Your task to perform on an android device: Set the phone to "Do not disturb". Image 0: 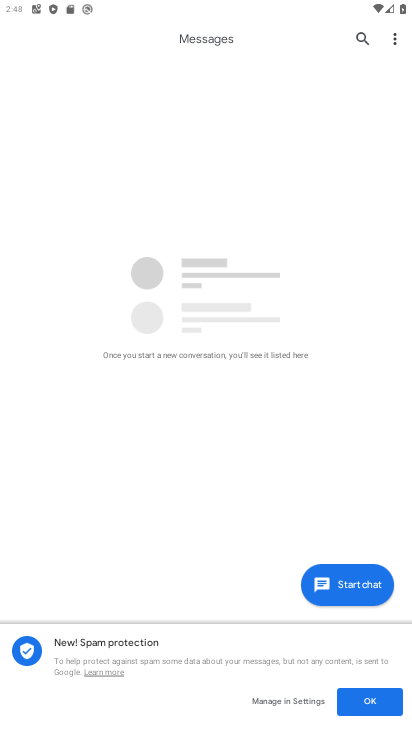
Step 0: press back button
Your task to perform on an android device: Set the phone to "Do not disturb". Image 1: 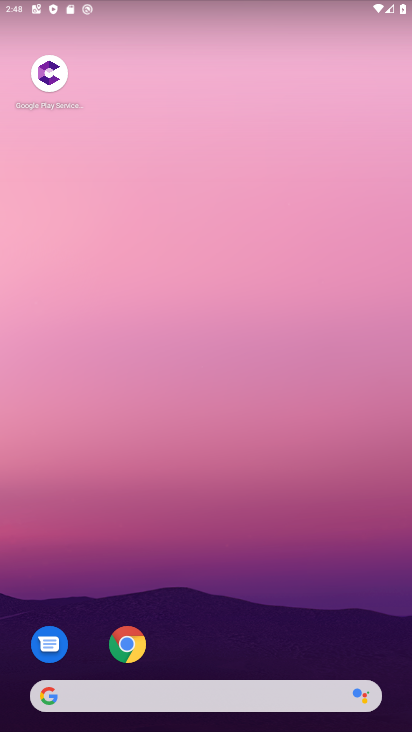
Step 1: drag from (283, 608) to (231, 11)
Your task to perform on an android device: Set the phone to "Do not disturb". Image 2: 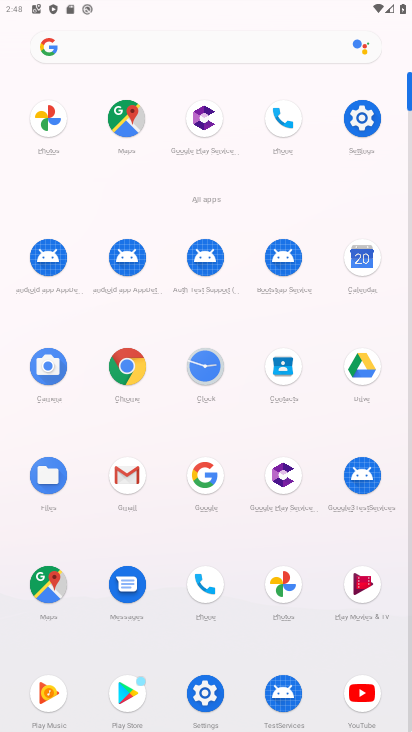
Step 2: click (361, 118)
Your task to perform on an android device: Set the phone to "Do not disturb". Image 3: 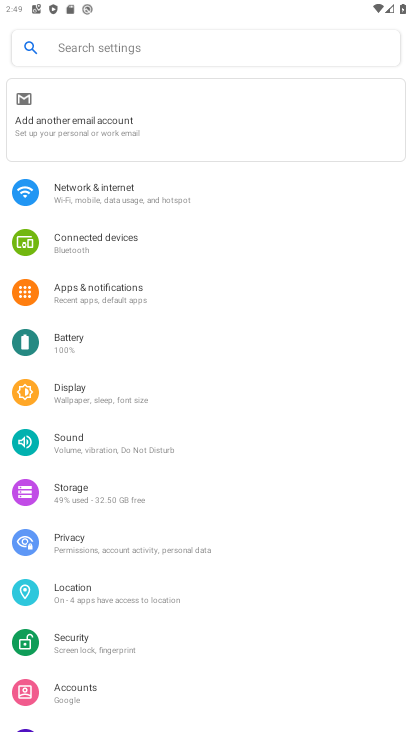
Step 3: click (133, 450)
Your task to perform on an android device: Set the phone to "Do not disturb". Image 4: 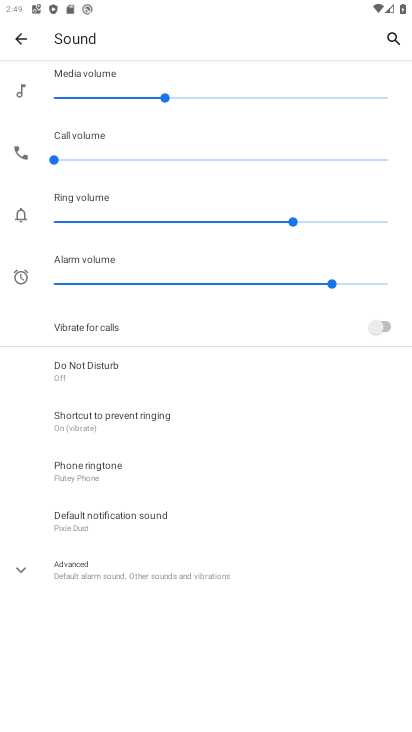
Step 4: click (80, 363)
Your task to perform on an android device: Set the phone to "Do not disturb". Image 5: 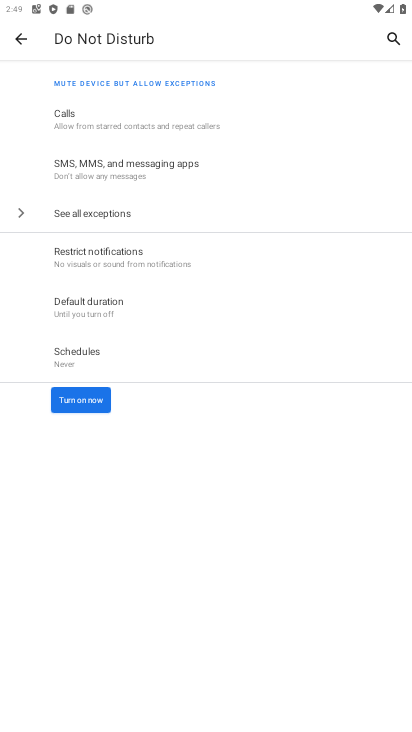
Step 5: click (79, 402)
Your task to perform on an android device: Set the phone to "Do not disturb". Image 6: 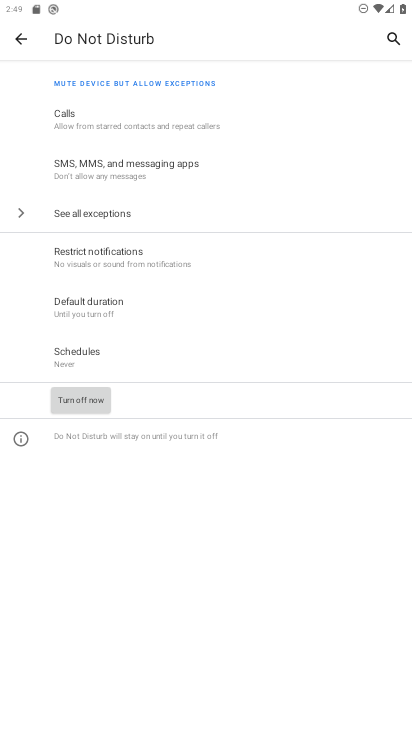
Step 6: task complete